Your task to perform on an android device: Show me recent news Image 0: 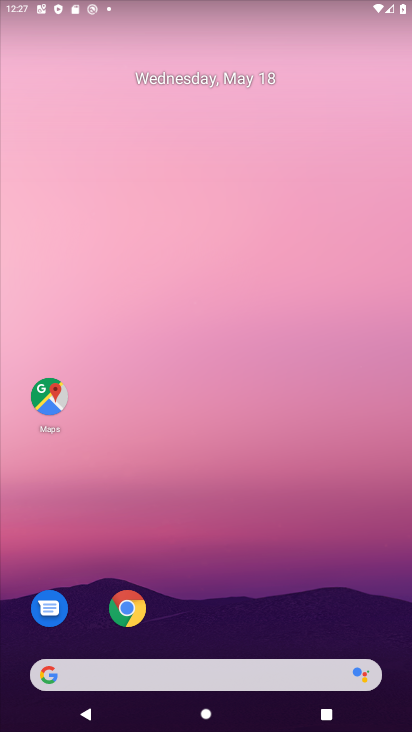
Step 0: click (269, 676)
Your task to perform on an android device: Show me recent news Image 1: 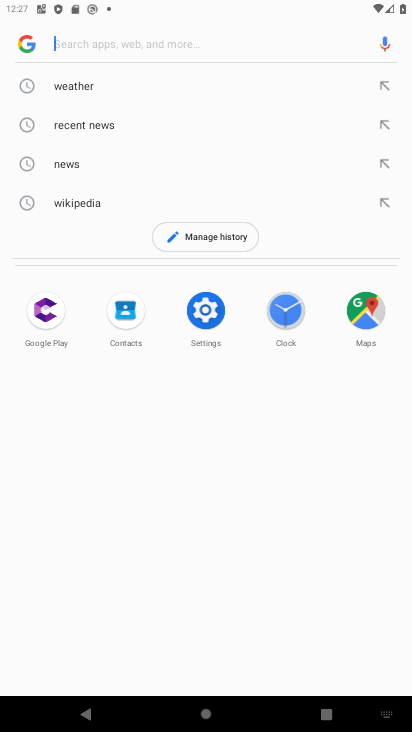
Step 1: click (108, 129)
Your task to perform on an android device: Show me recent news Image 2: 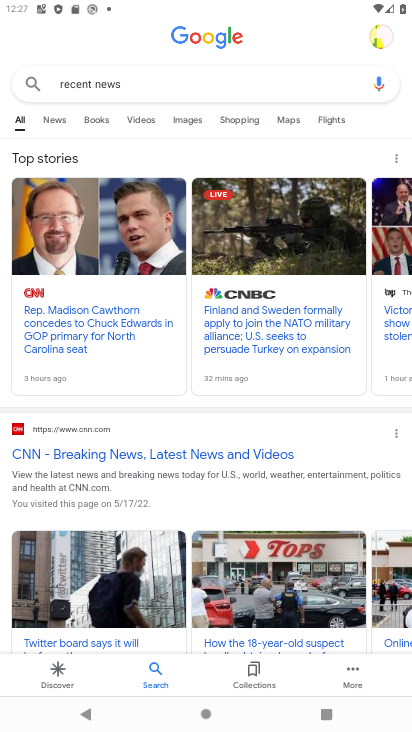
Step 2: task complete